Your task to perform on an android device: Add "lenovo thinkpad" to the cart on target.com Image 0: 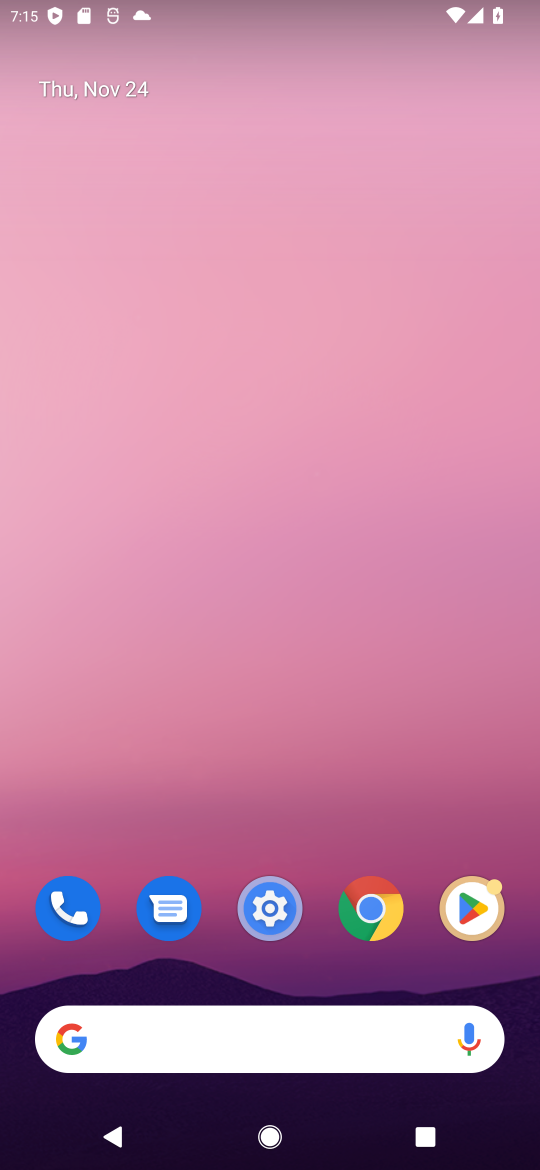
Step 0: press home button
Your task to perform on an android device: Add "lenovo thinkpad" to the cart on target.com Image 1: 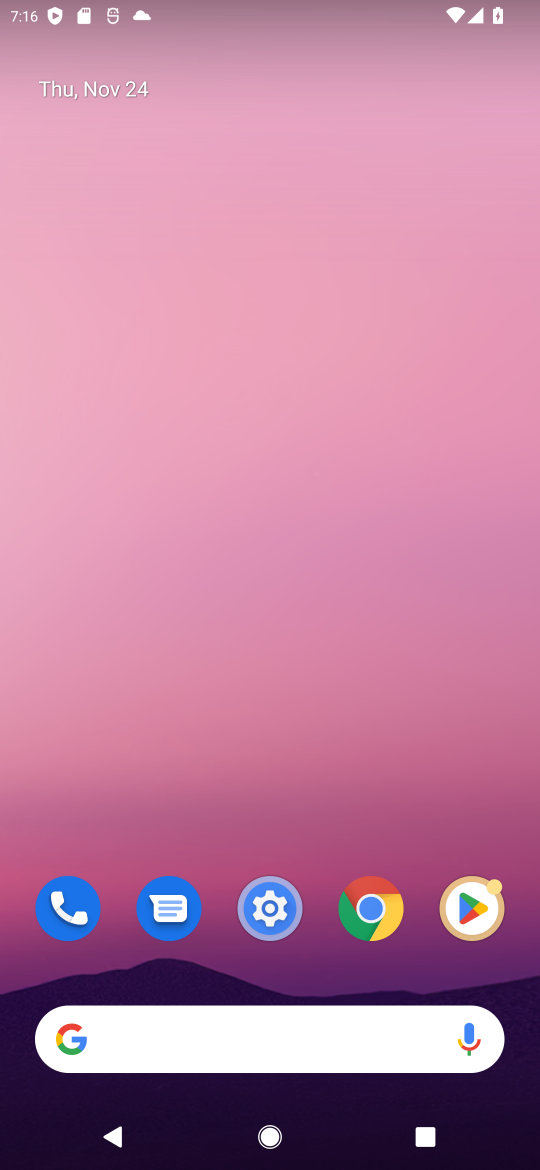
Step 1: click (285, 1050)
Your task to perform on an android device: Add "lenovo thinkpad" to the cart on target.com Image 2: 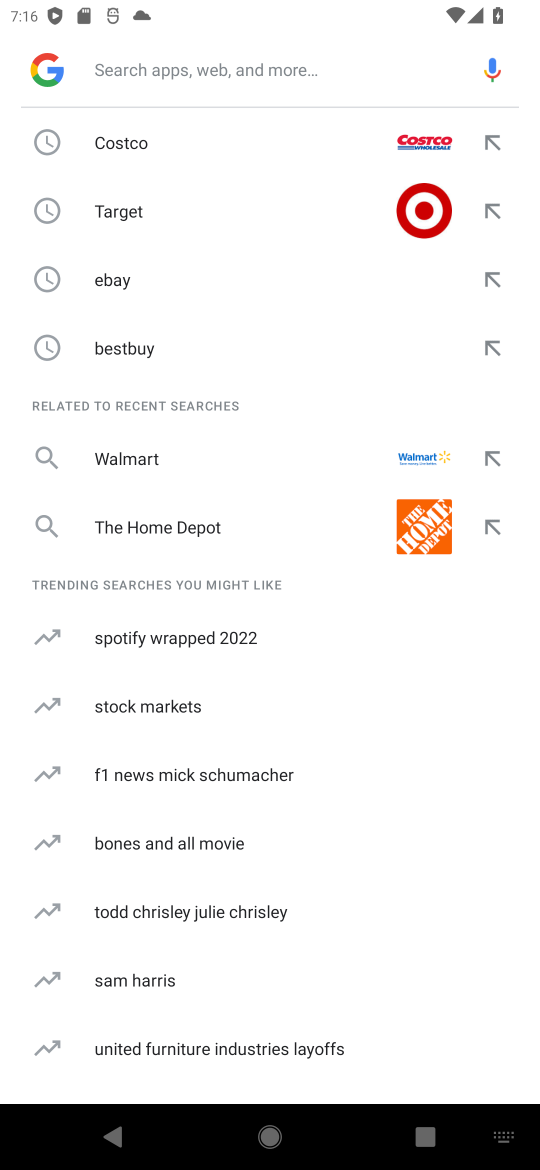
Step 2: click (210, 209)
Your task to perform on an android device: Add "lenovo thinkpad" to the cart on target.com Image 3: 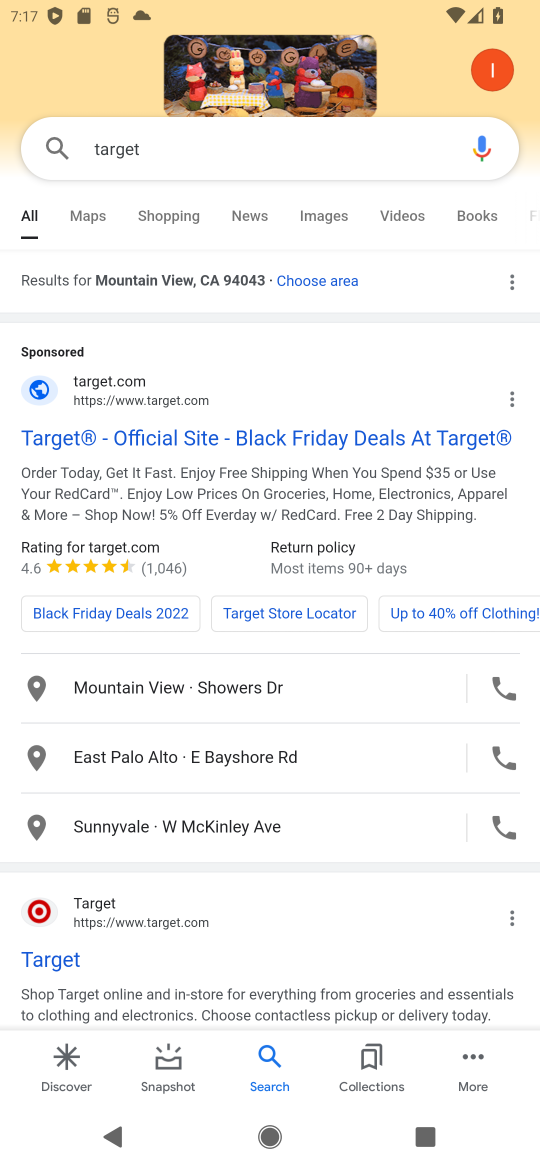
Step 3: click (114, 439)
Your task to perform on an android device: Add "lenovo thinkpad" to the cart on target.com Image 4: 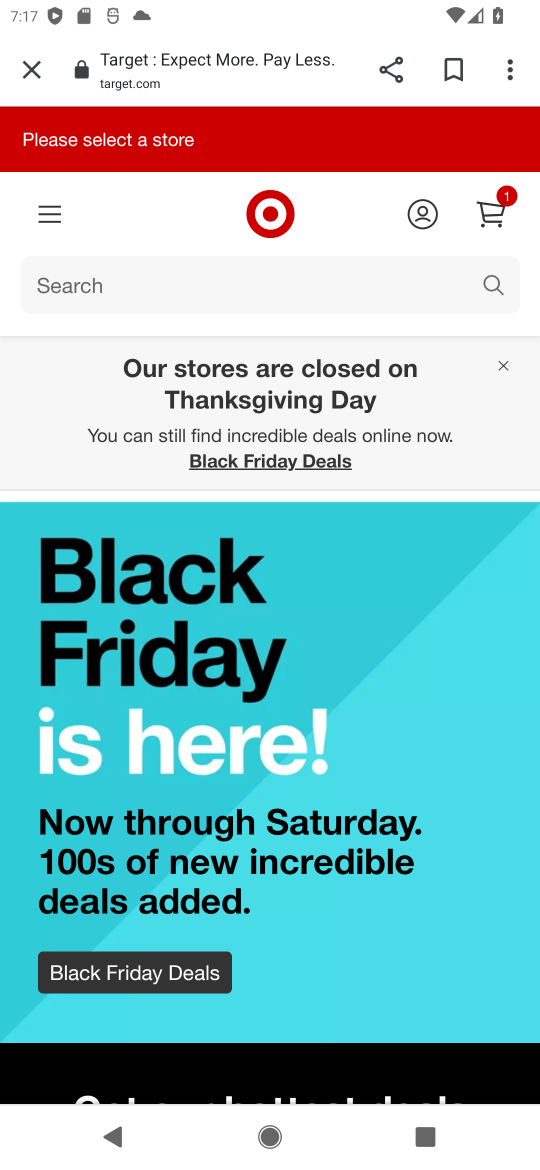
Step 4: task complete